Your task to perform on an android device: change the clock display to digital Image 0: 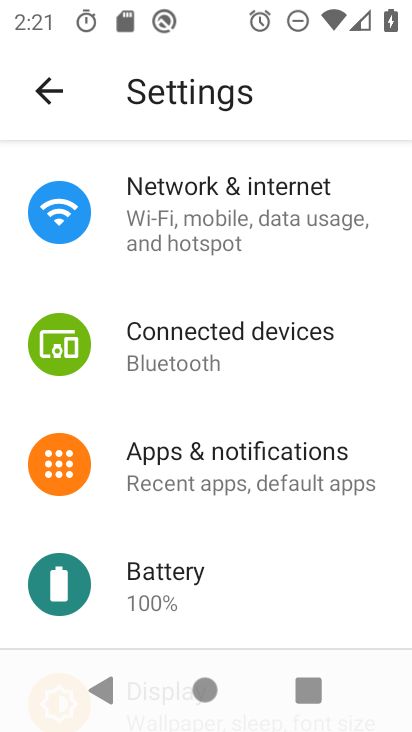
Step 0: press home button
Your task to perform on an android device: change the clock display to digital Image 1: 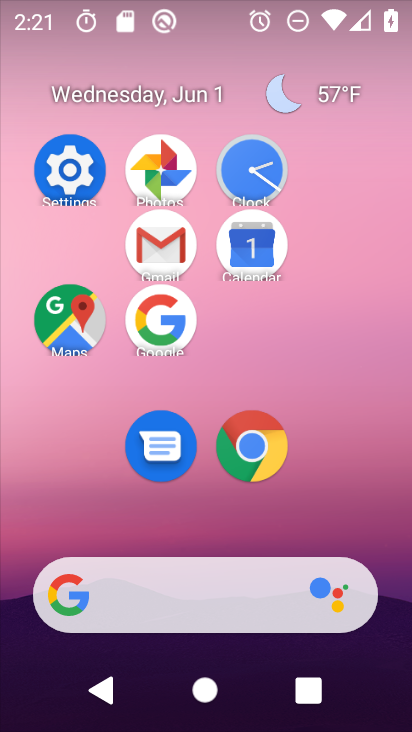
Step 1: click (260, 171)
Your task to perform on an android device: change the clock display to digital Image 2: 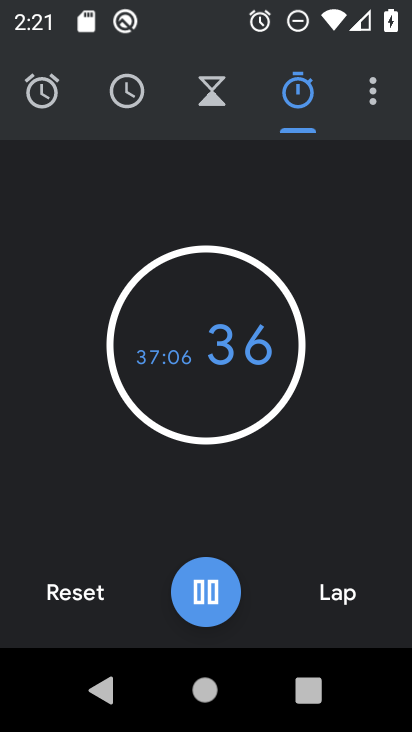
Step 2: click (358, 88)
Your task to perform on an android device: change the clock display to digital Image 3: 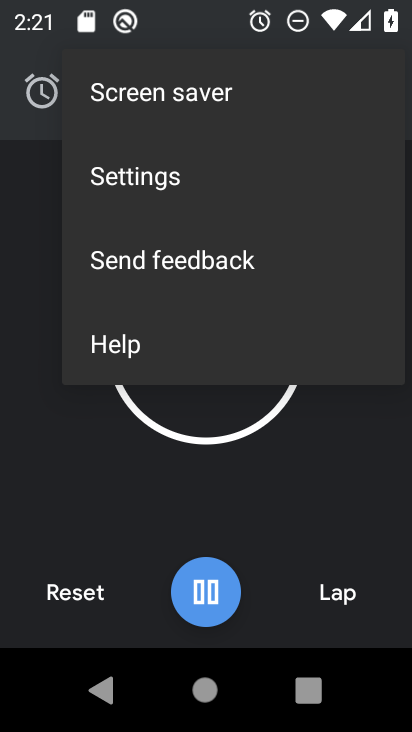
Step 3: click (156, 143)
Your task to perform on an android device: change the clock display to digital Image 4: 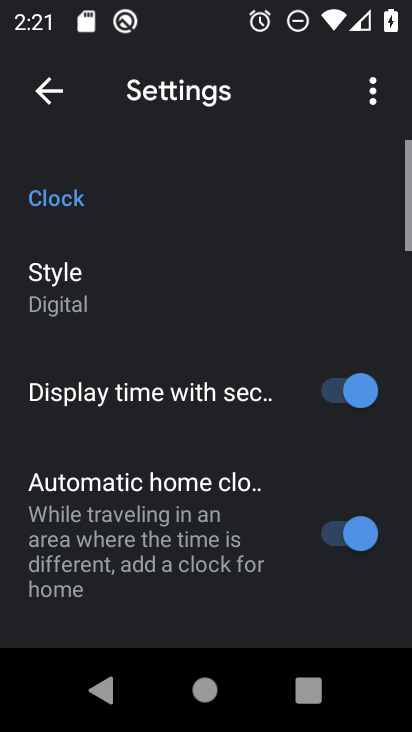
Step 4: click (103, 248)
Your task to perform on an android device: change the clock display to digital Image 5: 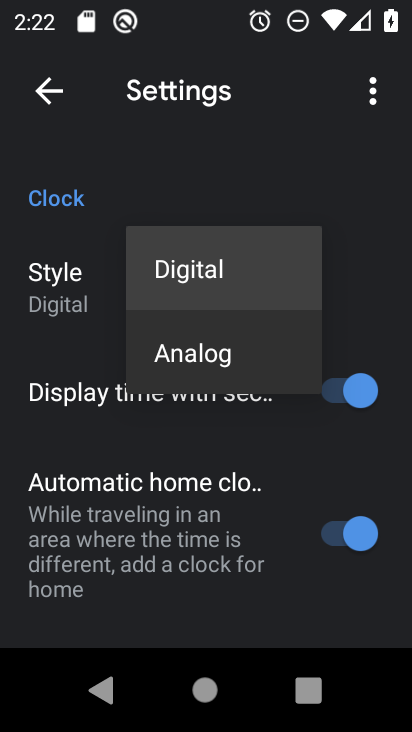
Step 5: task complete